Your task to perform on an android device: change your default location settings in chrome Image 0: 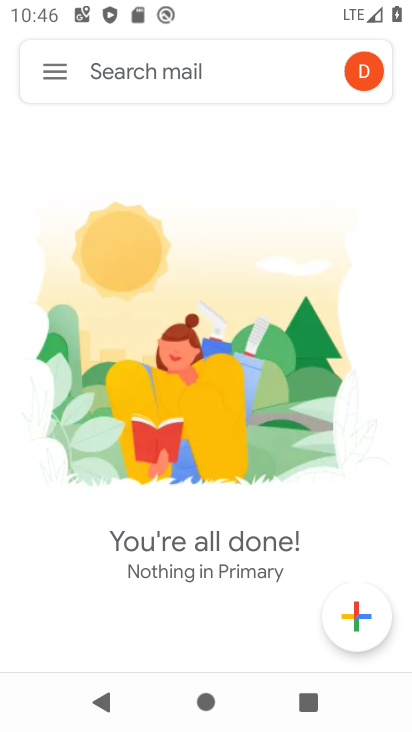
Step 0: press home button
Your task to perform on an android device: change your default location settings in chrome Image 1: 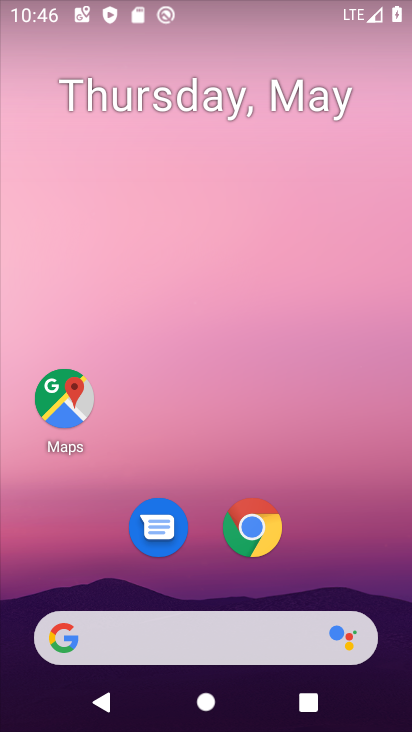
Step 1: click (251, 530)
Your task to perform on an android device: change your default location settings in chrome Image 2: 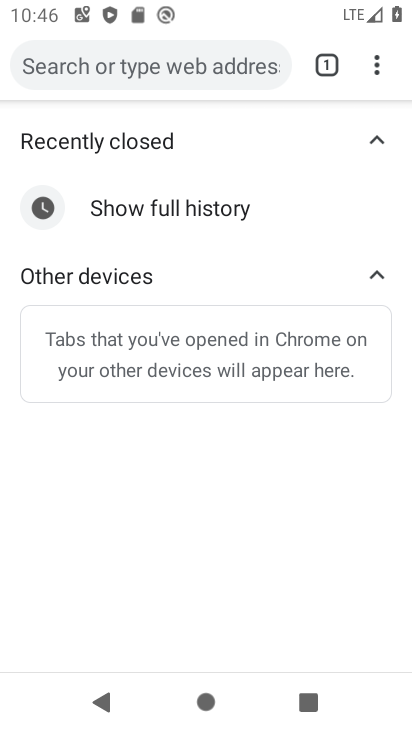
Step 2: click (395, 64)
Your task to perform on an android device: change your default location settings in chrome Image 3: 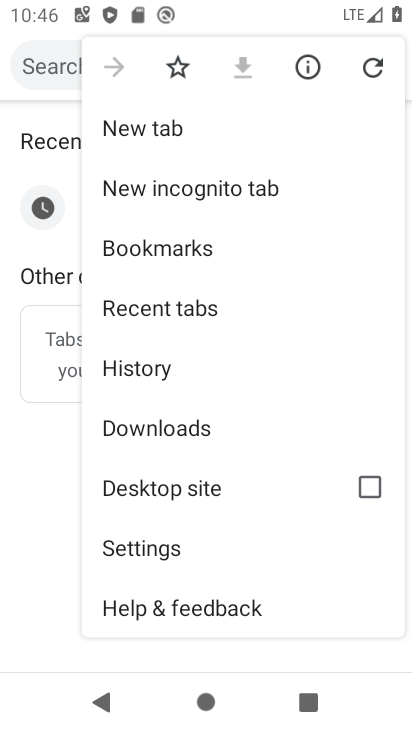
Step 3: click (184, 552)
Your task to perform on an android device: change your default location settings in chrome Image 4: 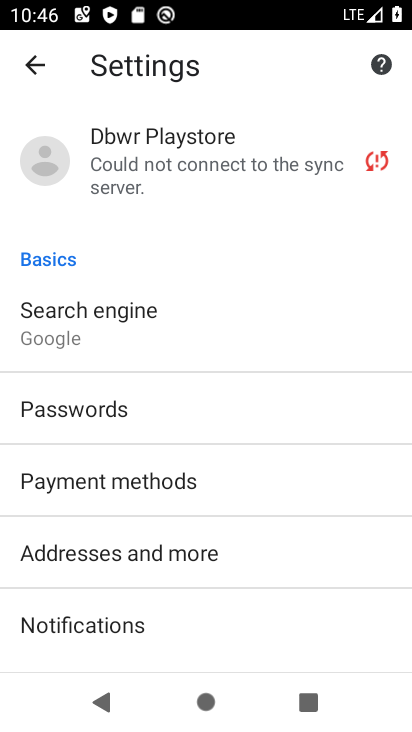
Step 4: drag from (157, 601) to (368, 134)
Your task to perform on an android device: change your default location settings in chrome Image 5: 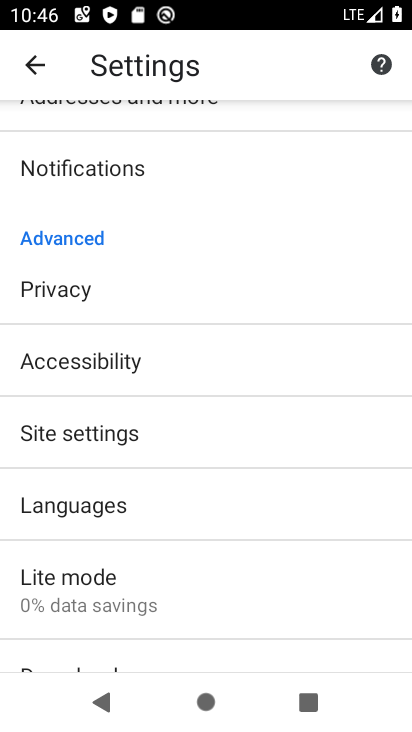
Step 5: click (112, 433)
Your task to perform on an android device: change your default location settings in chrome Image 6: 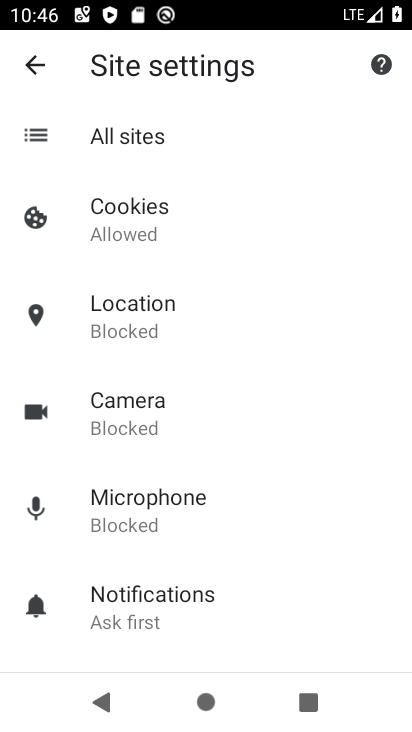
Step 6: click (175, 317)
Your task to perform on an android device: change your default location settings in chrome Image 7: 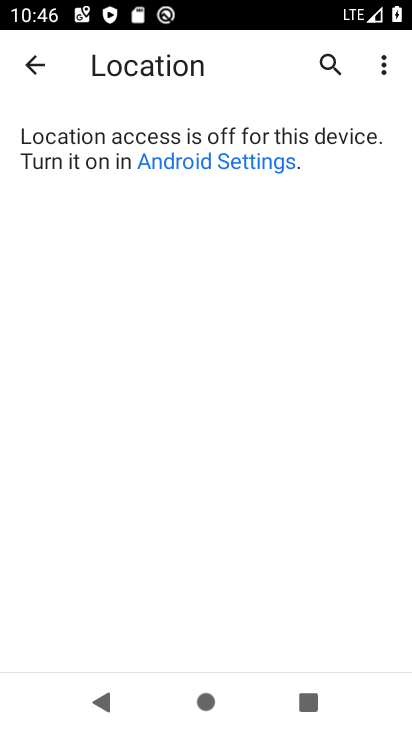
Step 7: task complete